Your task to perform on an android device: What's the weather going to be tomorrow? Image 0: 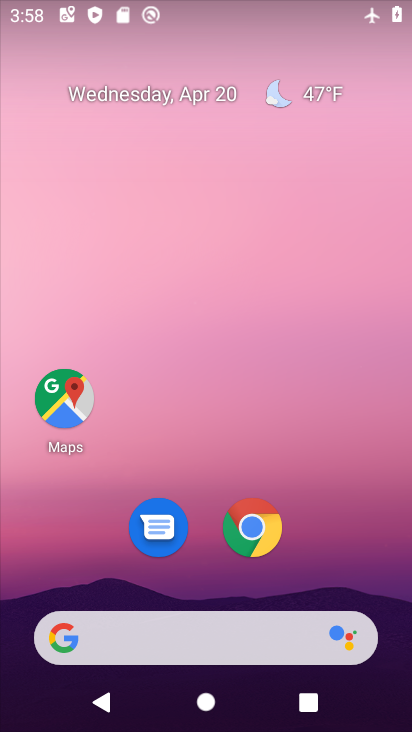
Step 0: click (267, 526)
Your task to perform on an android device: What's the weather going to be tomorrow? Image 1: 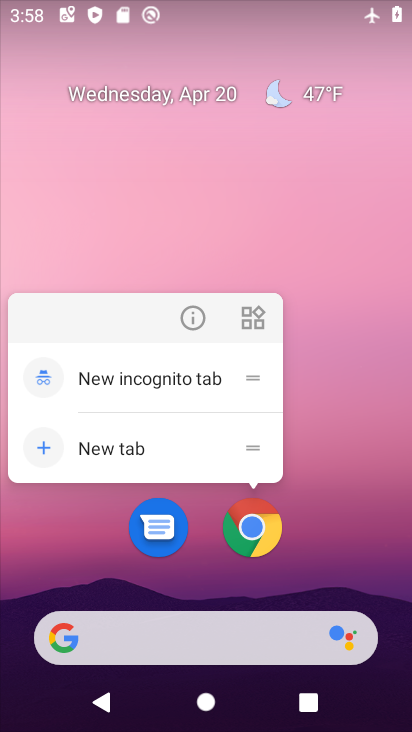
Step 1: click (246, 533)
Your task to perform on an android device: What's the weather going to be tomorrow? Image 2: 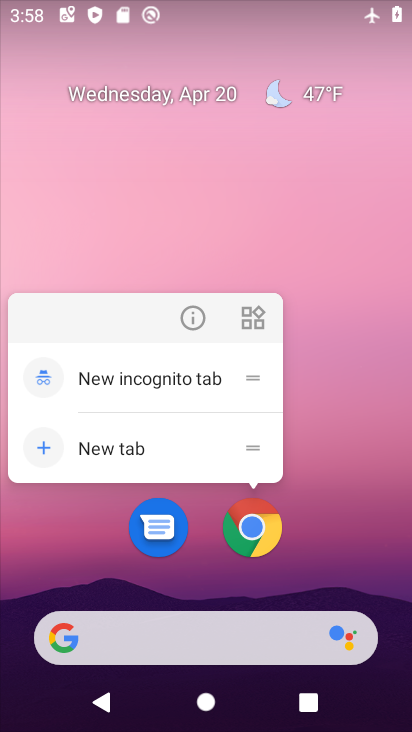
Step 2: click (246, 532)
Your task to perform on an android device: What's the weather going to be tomorrow? Image 3: 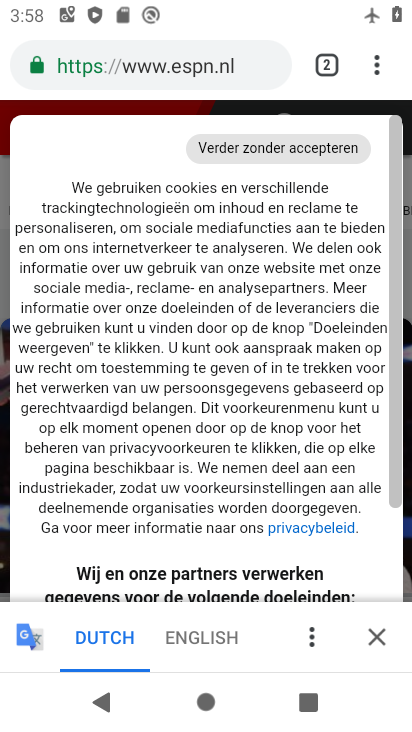
Step 3: click (140, 76)
Your task to perform on an android device: What's the weather going to be tomorrow? Image 4: 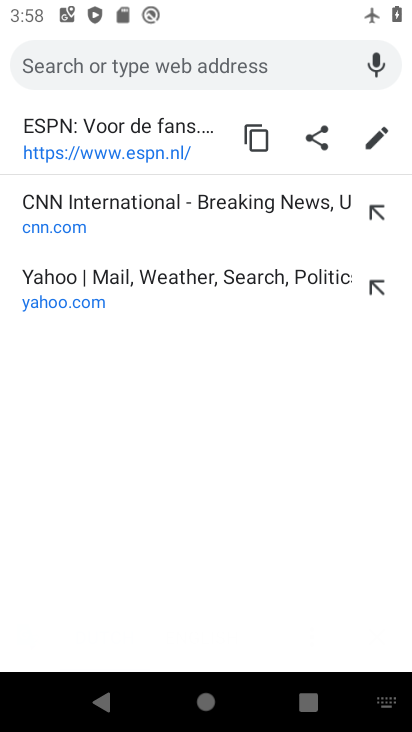
Step 4: type "what's the weather going to be tomorrow?"
Your task to perform on an android device: What's the weather going to be tomorrow? Image 5: 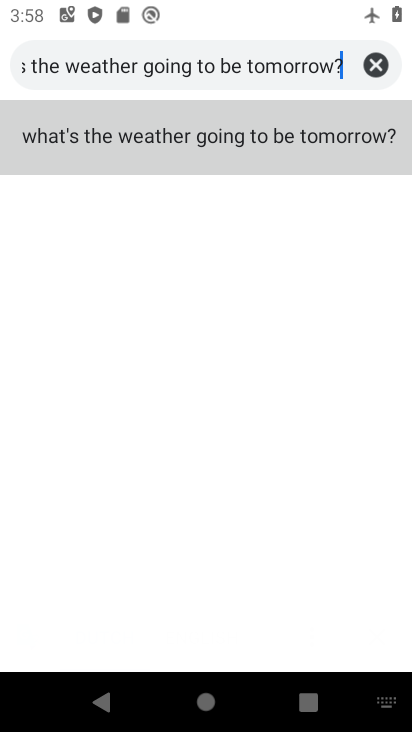
Step 5: click (147, 139)
Your task to perform on an android device: What's the weather going to be tomorrow? Image 6: 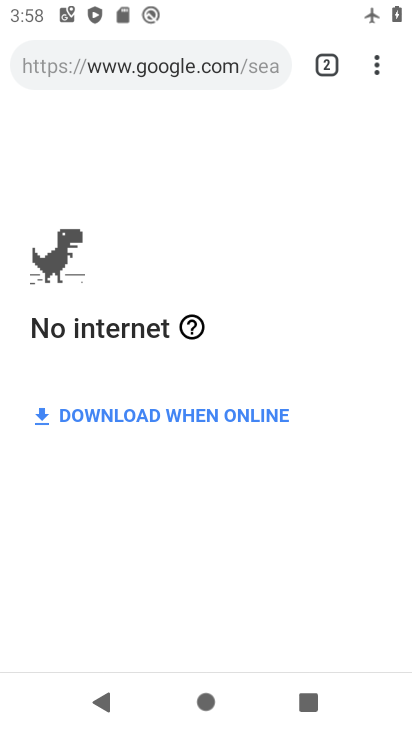
Step 6: task complete